Your task to perform on an android device: Open accessibility settings Image 0: 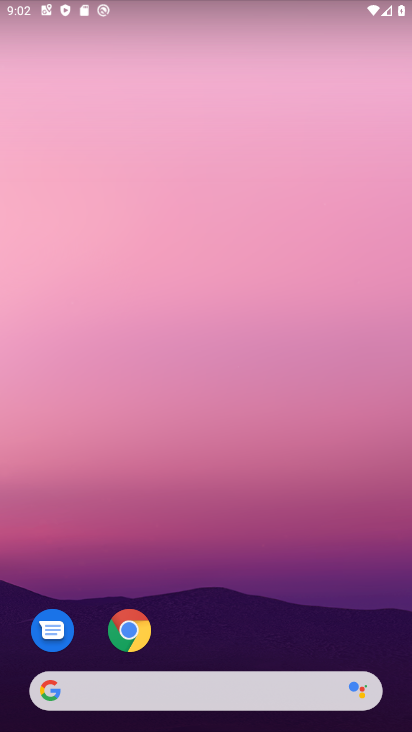
Step 0: click (371, 291)
Your task to perform on an android device: Open accessibility settings Image 1: 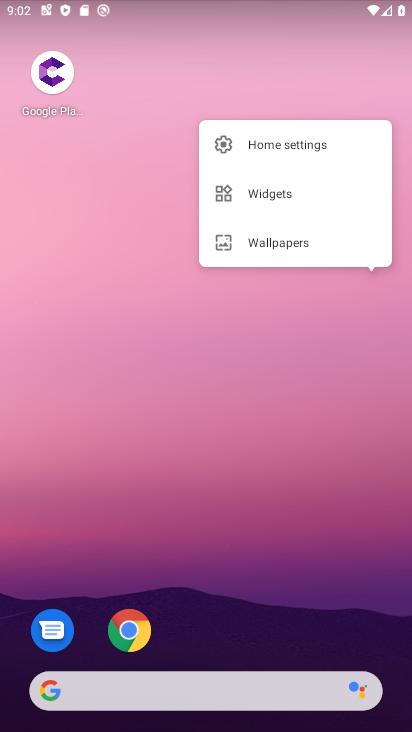
Step 1: click (319, 433)
Your task to perform on an android device: Open accessibility settings Image 2: 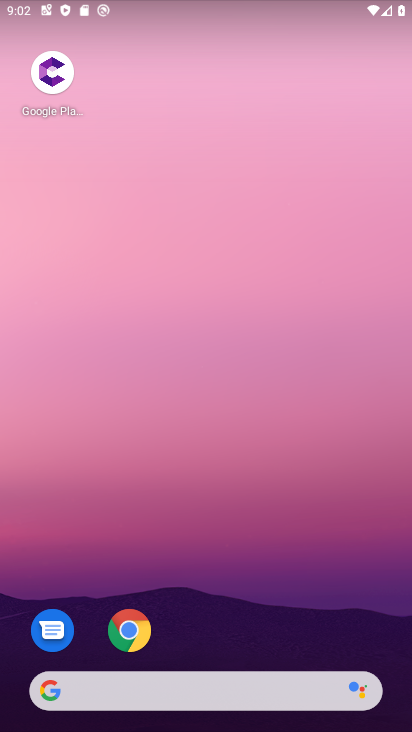
Step 2: drag from (282, 519) to (296, 3)
Your task to perform on an android device: Open accessibility settings Image 3: 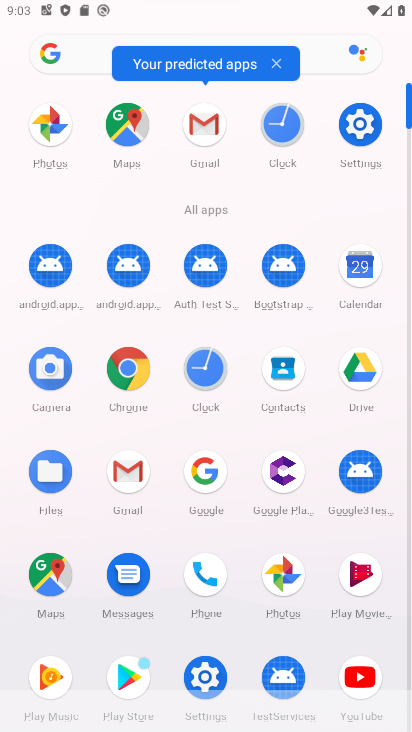
Step 3: click (350, 147)
Your task to perform on an android device: Open accessibility settings Image 4: 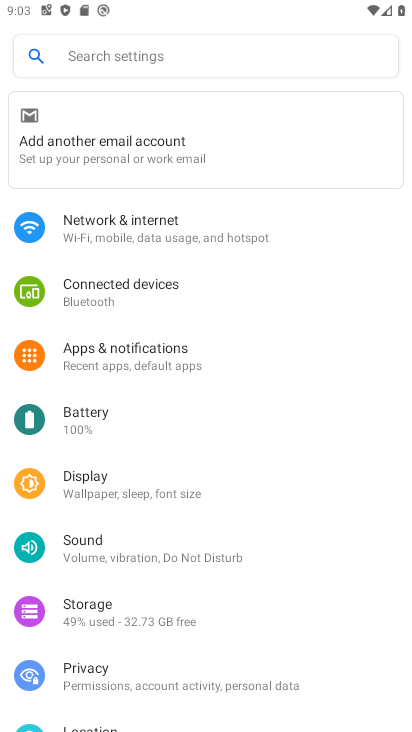
Step 4: drag from (274, 613) to (258, 247)
Your task to perform on an android device: Open accessibility settings Image 5: 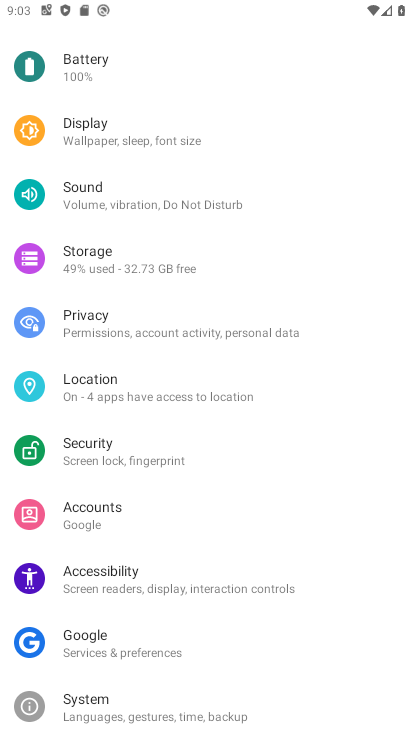
Step 5: click (176, 571)
Your task to perform on an android device: Open accessibility settings Image 6: 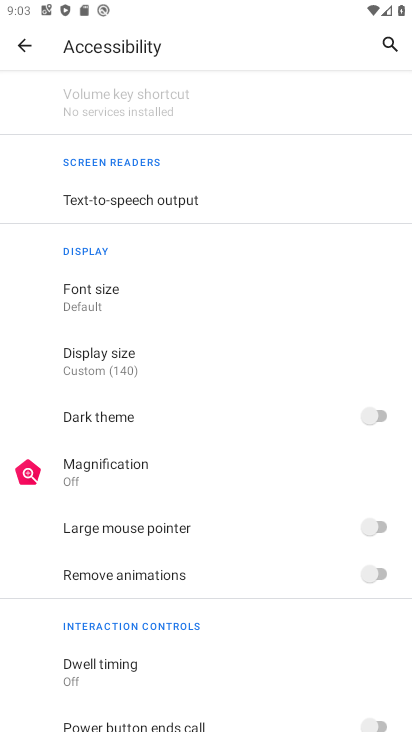
Step 6: task complete